Your task to perform on an android device: turn off sleep mode Image 0: 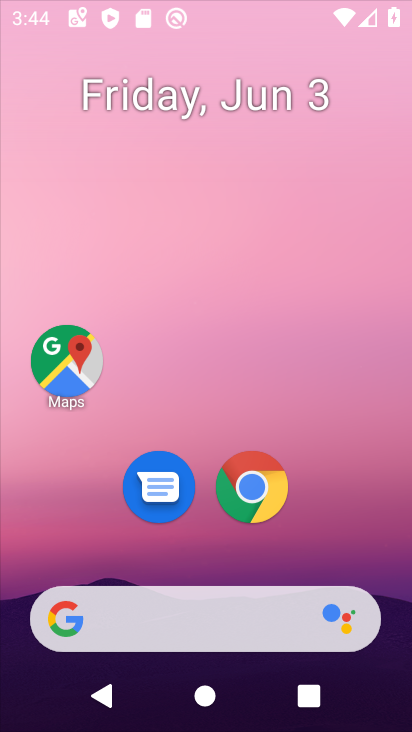
Step 0: click (287, 175)
Your task to perform on an android device: turn off sleep mode Image 1: 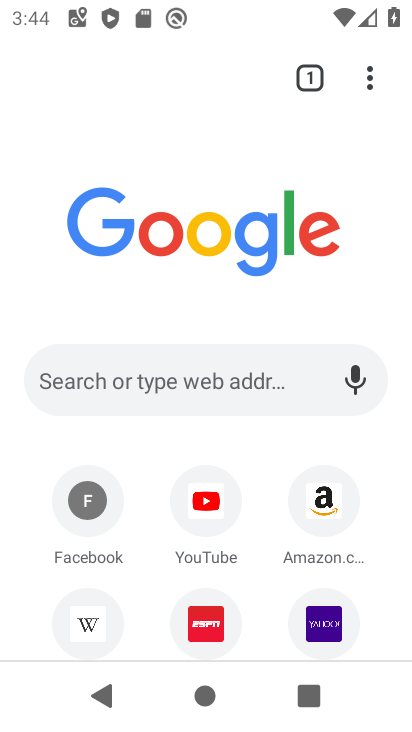
Step 1: press home button
Your task to perform on an android device: turn off sleep mode Image 2: 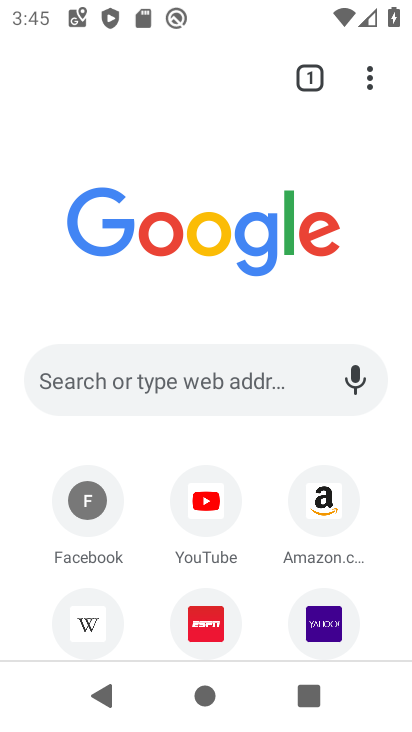
Step 2: press home button
Your task to perform on an android device: turn off sleep mode Image 3: 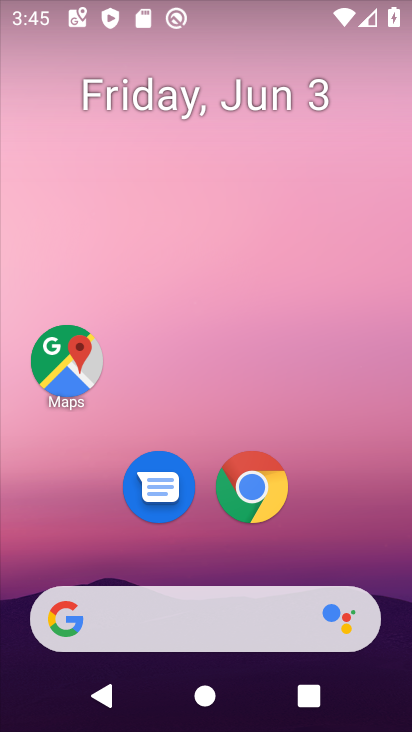
Step 3: drag from (217, 551) to (263, 72)
Your task to perform on an android device: turn off sleep mode Image 4: 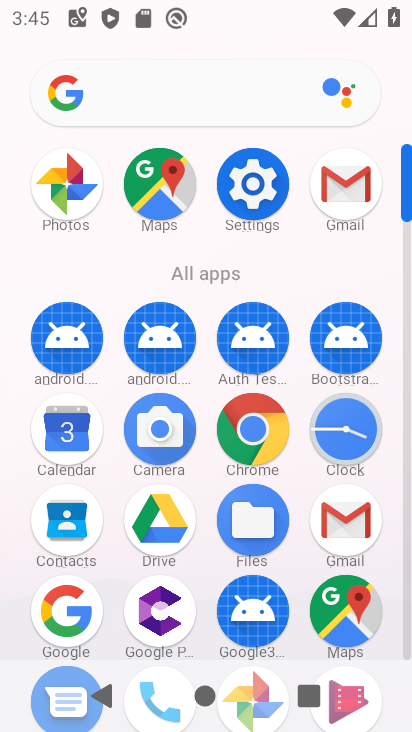
Step 4: click (240, 188)
Your task to perform on an android device: turn off sleep mode Image 5: 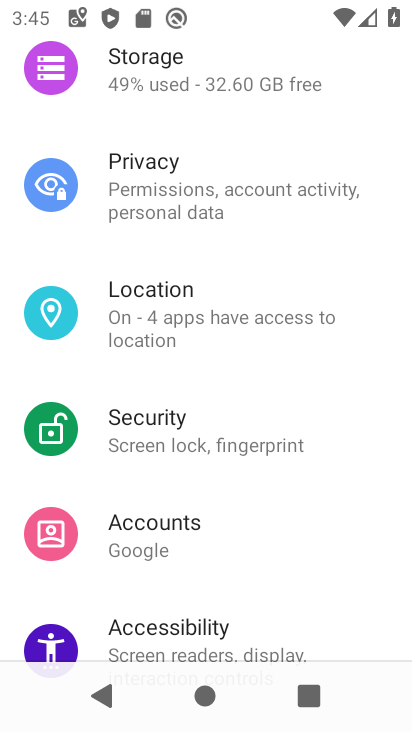
Step 5: drag from (206, 144) to (230, 636)
Your task to perform on an android device: turn off sleep mode Image 6: 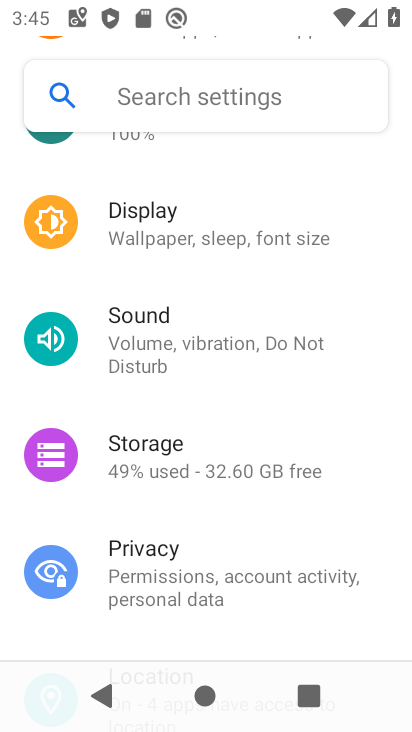
Step 6: click (173, 241)
Your task to perform on an android device: turn off sleep mode Image 7: 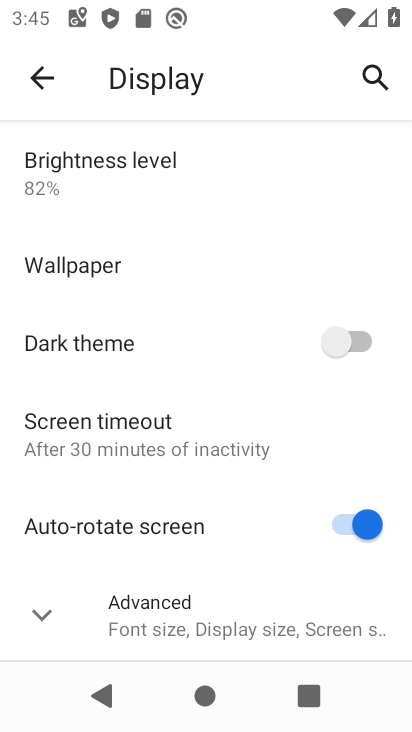
Step 7: drag from (249, 599) to (240, 332)
Your task to perform on an android device: turn off sleep mode Image 8: 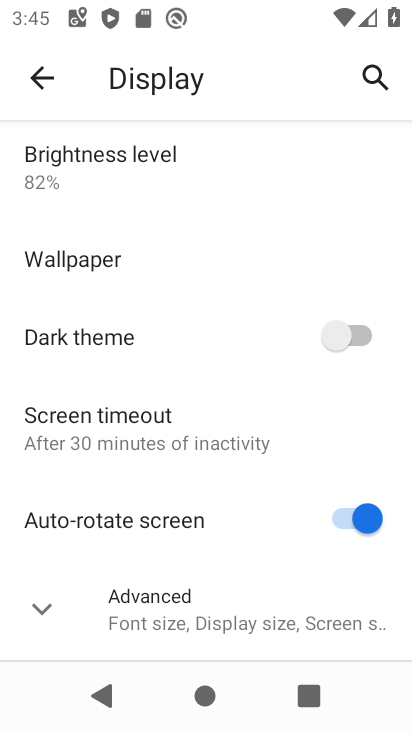
Step 8: click (155, 434)
Your task to perform on an android device: turn off sleep mode Image 9: 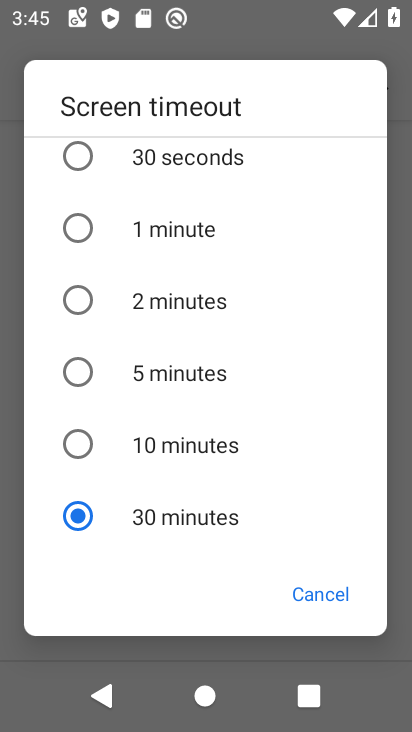
Step 9: task complete